Your task to perform on an android device: Open settings Image 0: 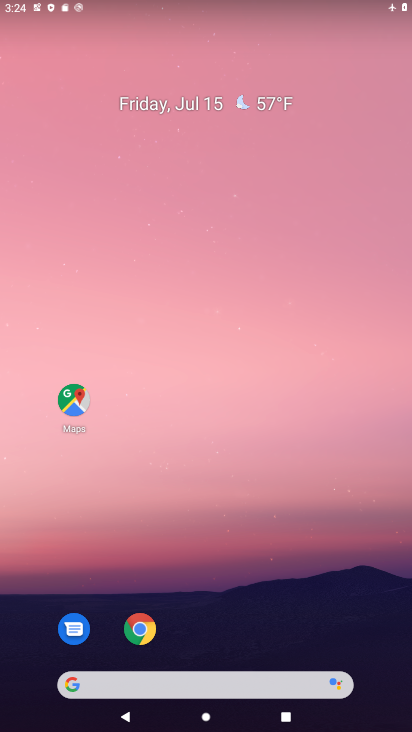
Step 0: drag from (247, 701) to (246, 224)
Your task to perform on an android device: Open settings Image 1: 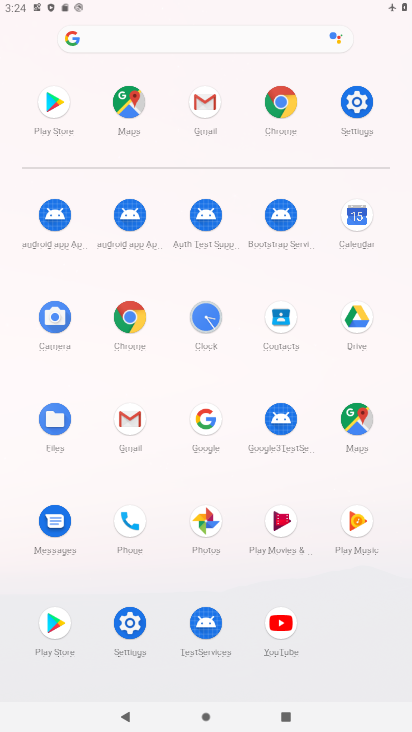
Step 1: click (367, 101)
Your task to perform on an android device: Open settings Image 2: 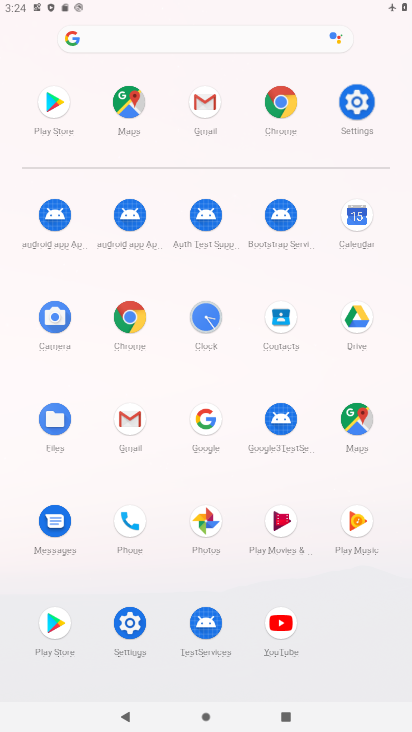
Step 2: click (367, 101)
Your task to perform on an android device: Open settings Image 3: 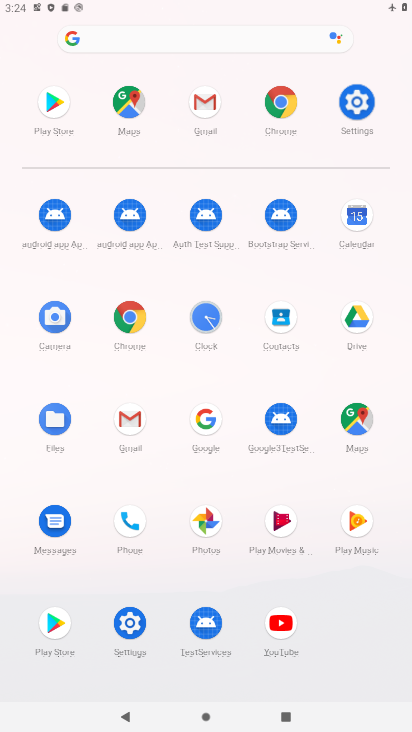
Step 3: click (367, 101)
Your task to perform on an android device: Open settings Image 4: 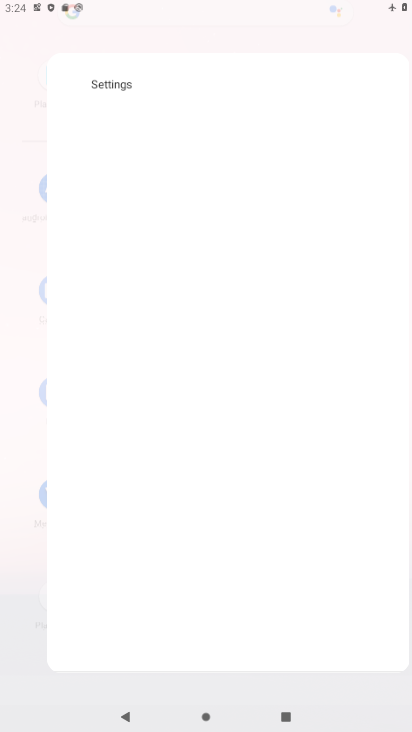
Step 4: click (366, 101)
Your task to perform on an android device: Open settings Image 5: 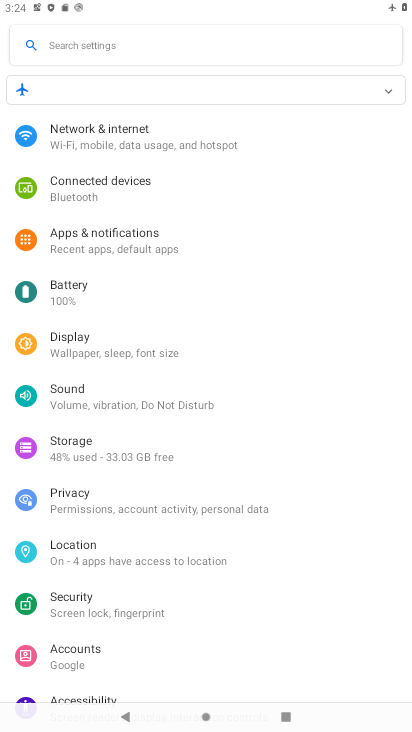
Step 5: task complete